Your task to perform on an android device: What's on my calendar today? Image 0: 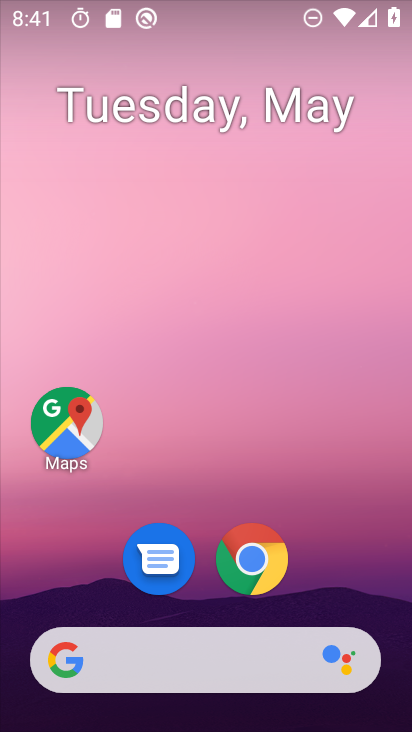
Step 0: drag from (393, 650) to (320, 98)
Your task to perform on an android device: What's on my calendar today? Image 1: 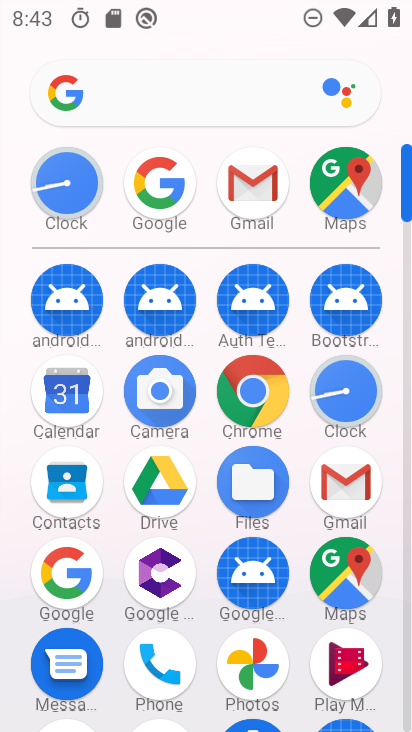
Step 1: click (65, 404)
Your task to perform on an android device: What's on my calendar today? Image 2: 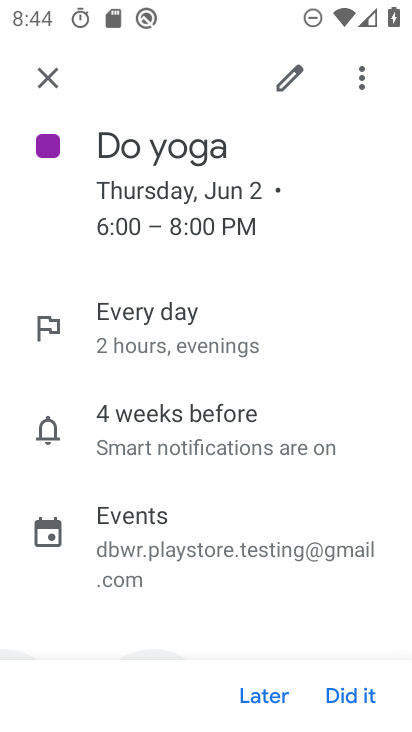
Step 2: press back button
Your task to perform on an android device: What's on my calendar today? Image 3: 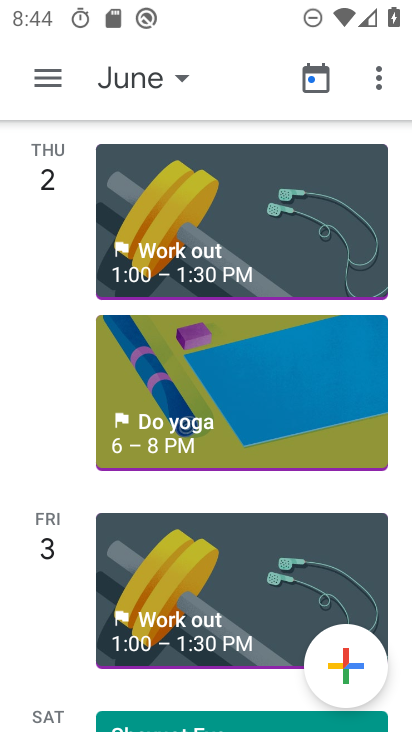
Step 3: click (139, 70)
Your task to perform on an android device: What's on my calendar today? Image 4: 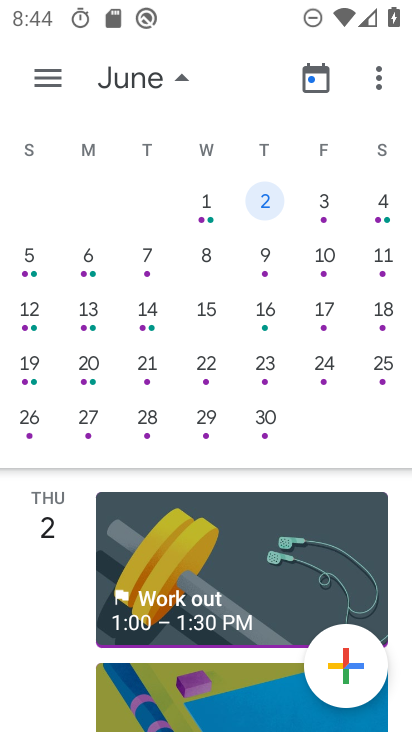
Step 4: click (204, 207)
Your task to perform on an android device: What's on my calendar today? Image 5: 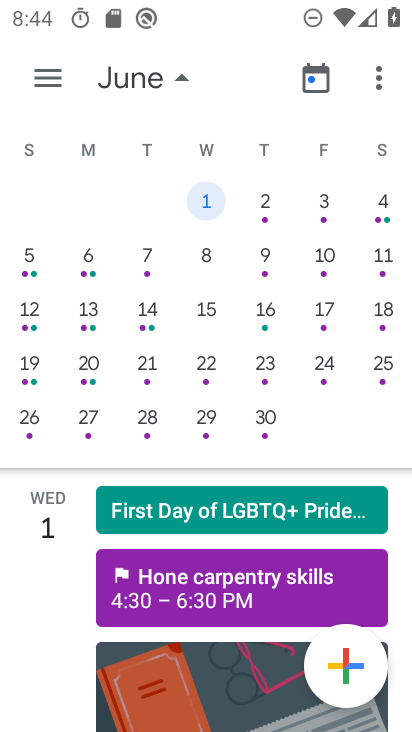
Step 5: click (230, 582)
Your task to perform on an android device: What's on my calendar today? Image 6: 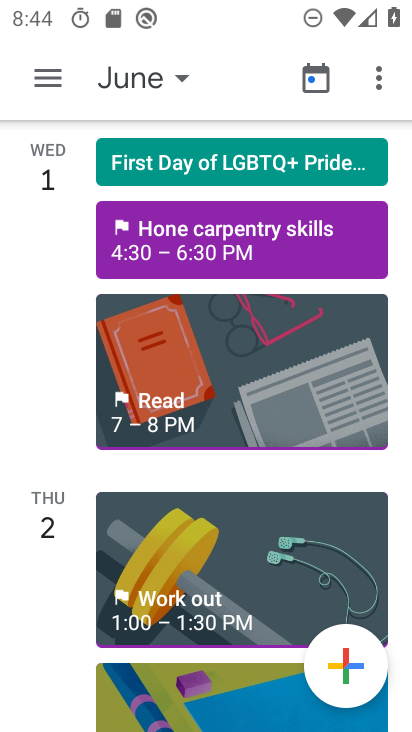
Step 6: click (288, 262)
Your task to perform on an android device: What's on my calendar today? Image 7: 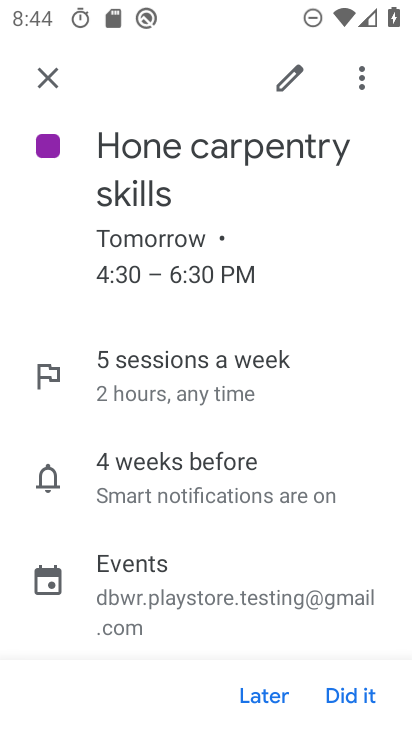
Step 7: task complete